Your task to perform on an android device: find which apps use the phone's location Image 0: 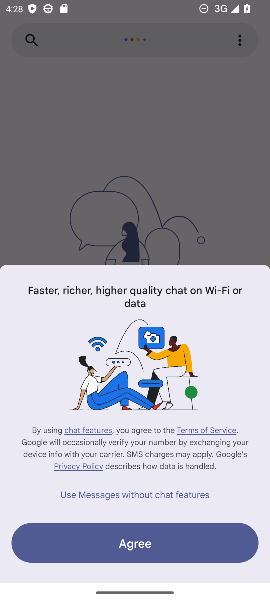
Step 0: press back button
Your task to perform on an android device: find which apps use the phone's location Image 1: 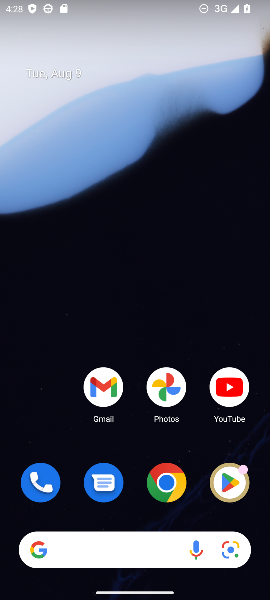
Step 1: drag from (137, 445) to (132, 100)
Your task to perform on an android device: find which apps use the phone's location Image 2: 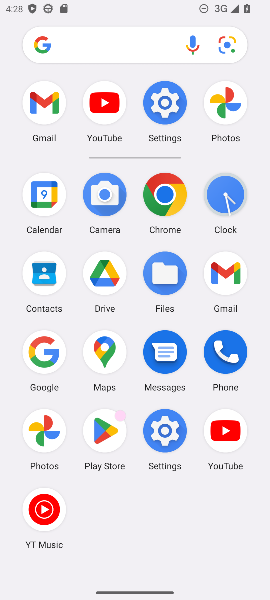
Step 2: click (160, 100)
Your task to perform on an android device: find which apps use the phone's location Image 3: 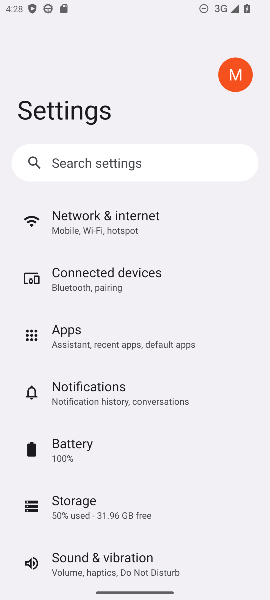
Step 3: drag from (114, 478) to (119, 236)
Your task to perform on an android device: find which apps use the phone's location Image 4: 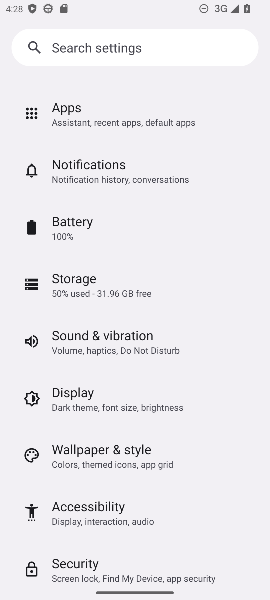
Step 4: drag from (107, 479) to (113, 228)
Your task to perform on an android device: find which apps use the phone's location Image 5: 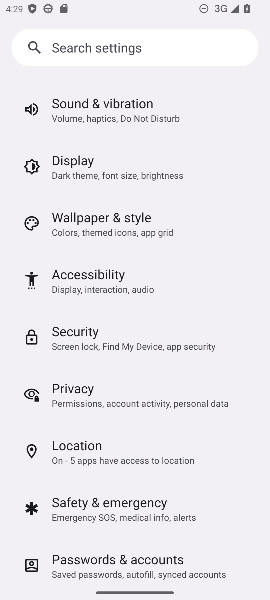
Step 5: click (93, 445)
Your task to perform on an android device: find which apps use the phone's location Image 6: 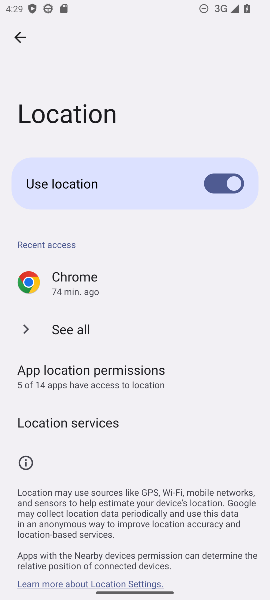
Step 6: click (118, 379)
Your task to perform on an android device: find which apps use the phone's location Image 7: 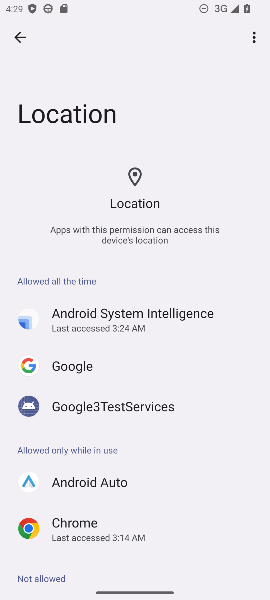
Step 7: task complete